Your task to perform on an android device: change the upload size in google photos Image 0: 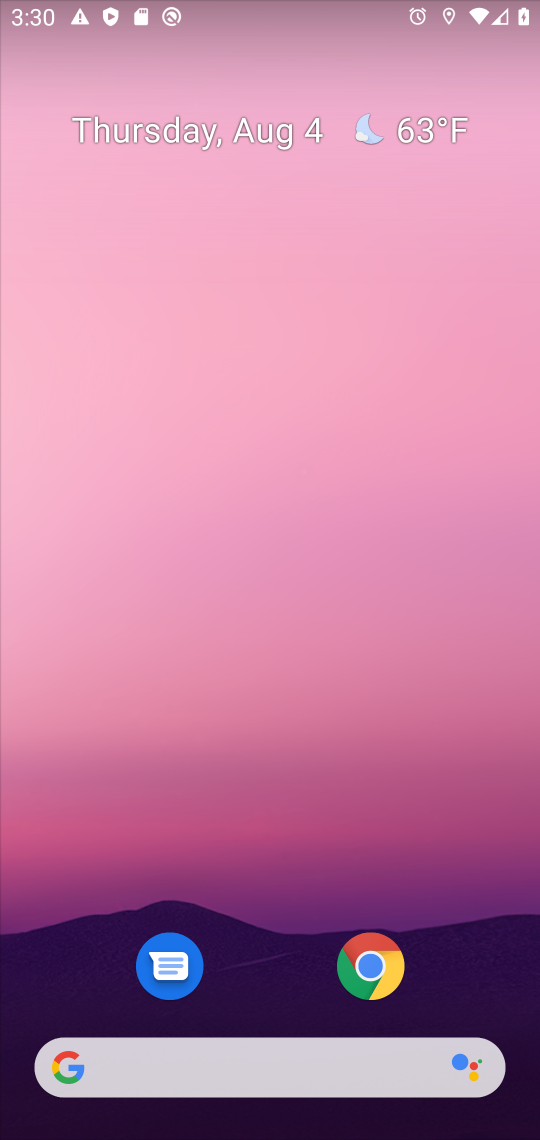
Step 0: press home button
Your task to perform on an android device: change the upload size in google photos Image 1: 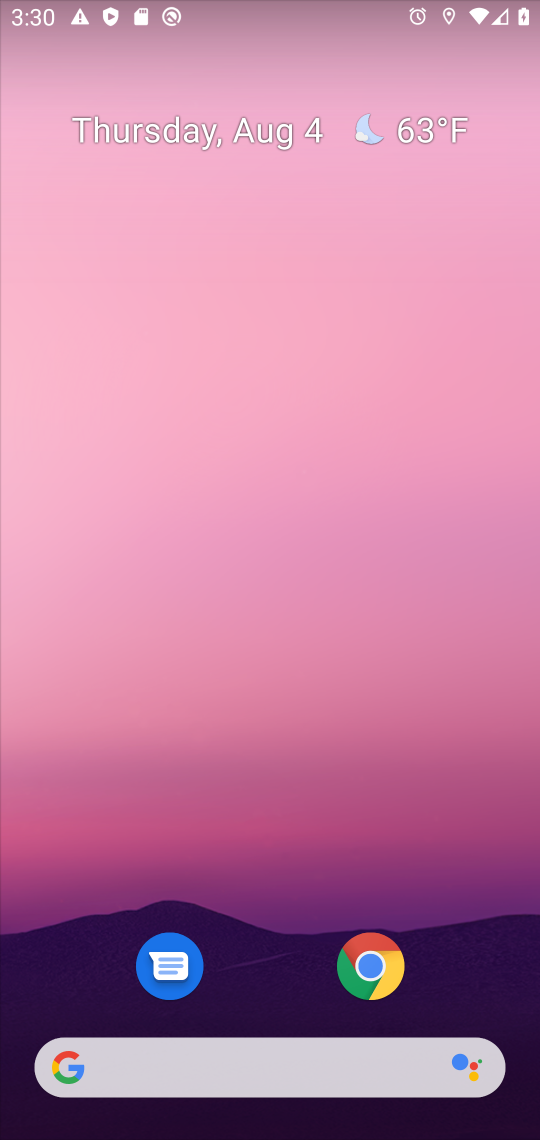
Step 1: drag from (305, 917) to (301, 97)
Your task to perform on an android device: change the upload size in google photos Image 2: 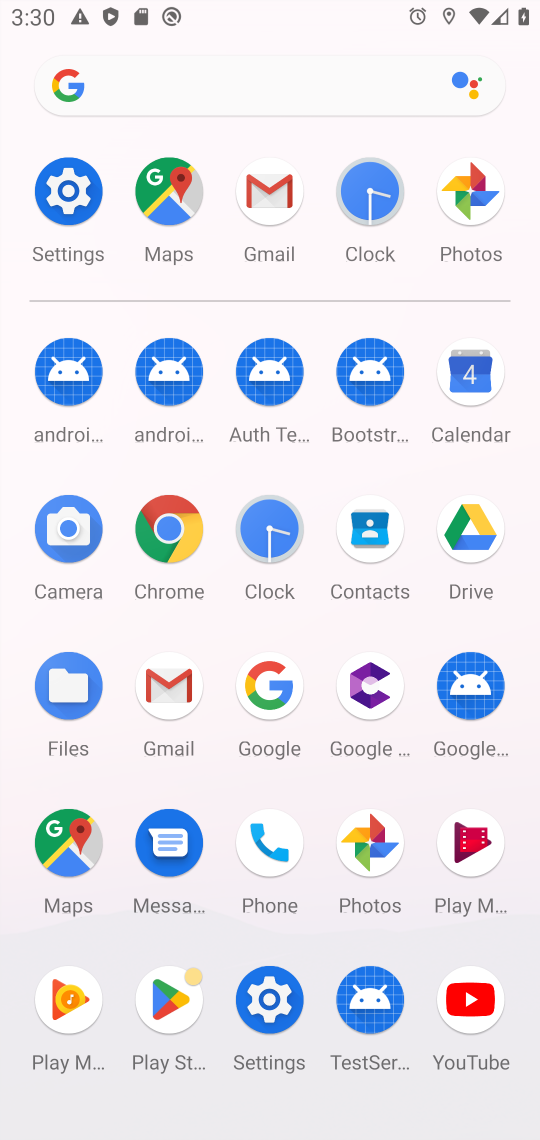
Step 2: click (460, 193)
Your task to perform on an android device: change the upload size in google photos Image 3: 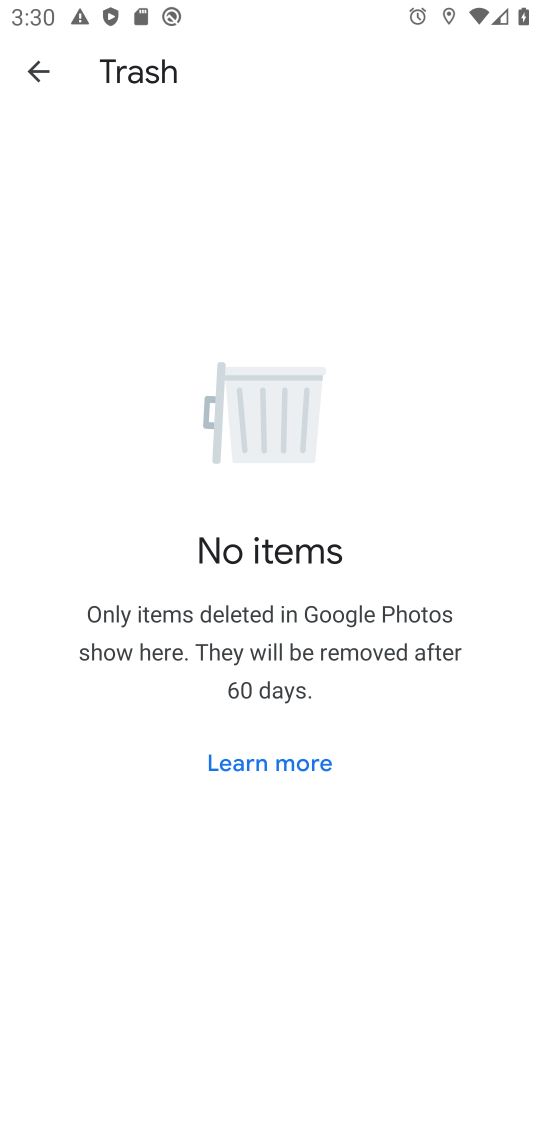
Step 3: click (41, 71)
Your task to perform on an android device: change the upload size in google photos Image 4: 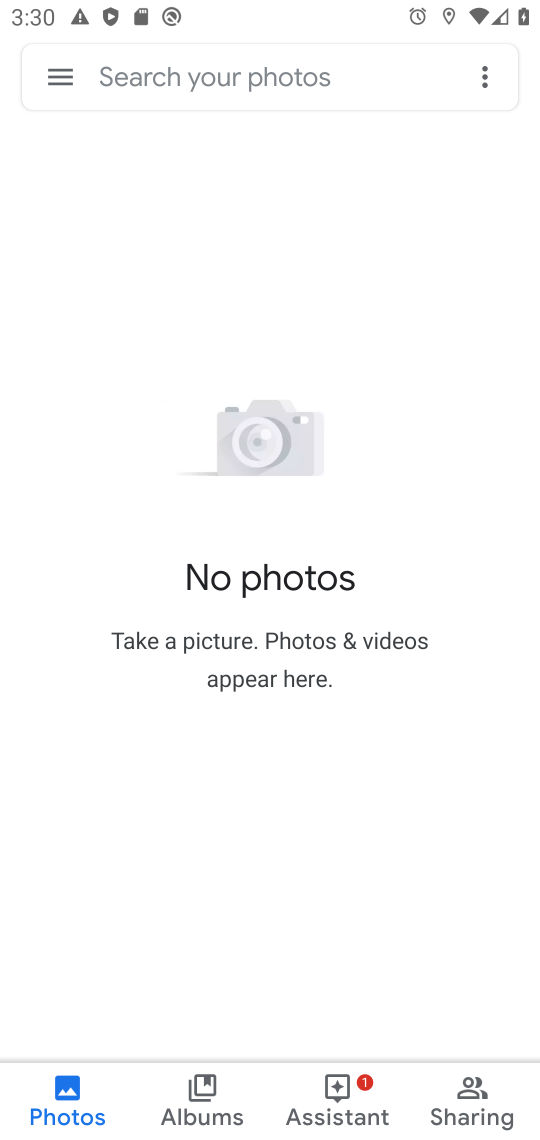
Step 4: click (41, 72)
Your task to perform on an android device: change the upload size in google photos Image 5: 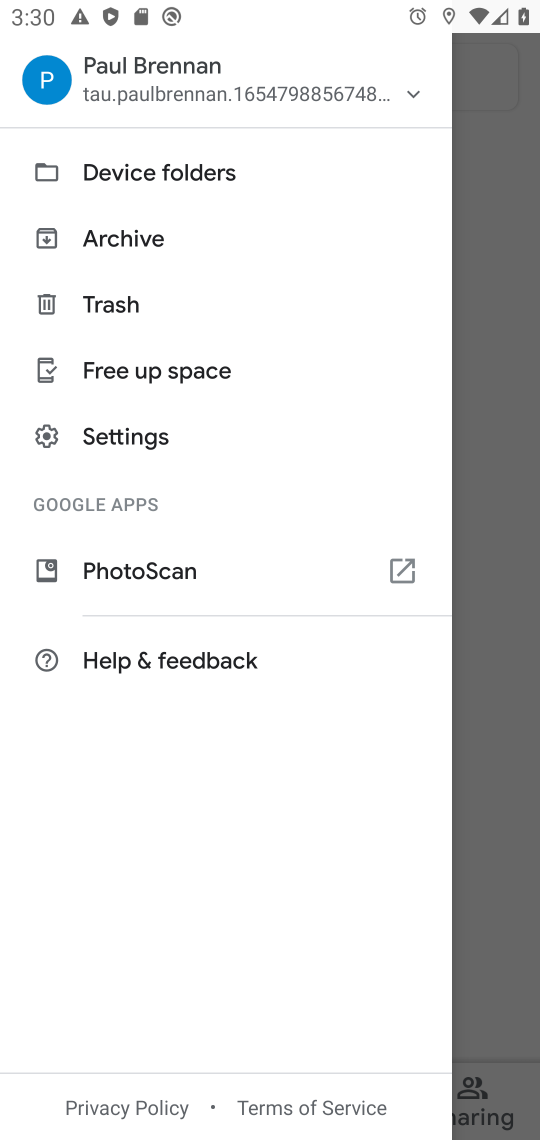
Step 5: click (126, 457)
Your task to perform on an android device: change the upload size in google photos Image 6: 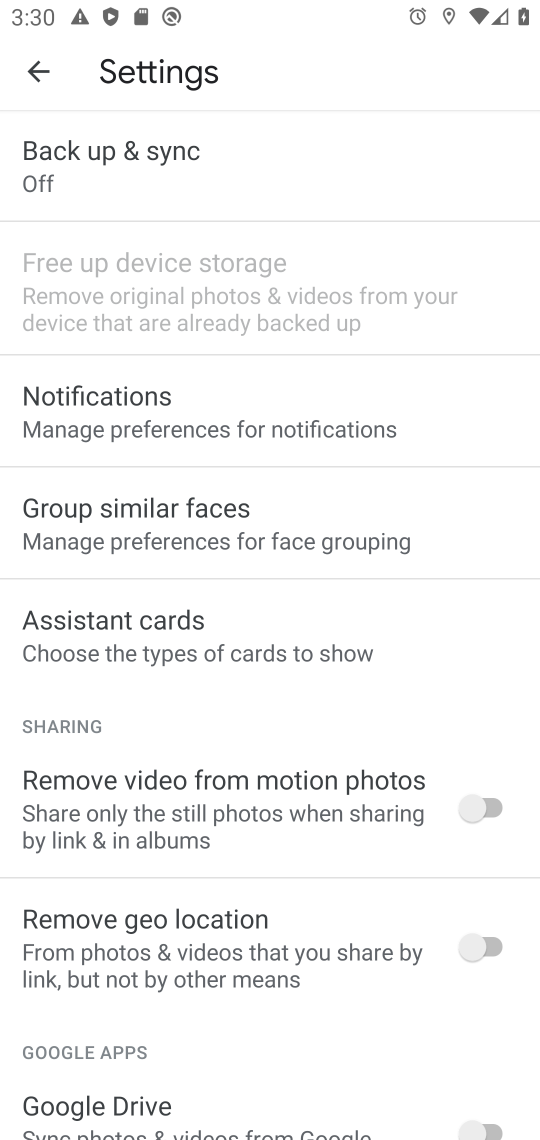
Step 6: click (145, 160)
Your task to perform on an android device: change the upload size in google photos Image 7: 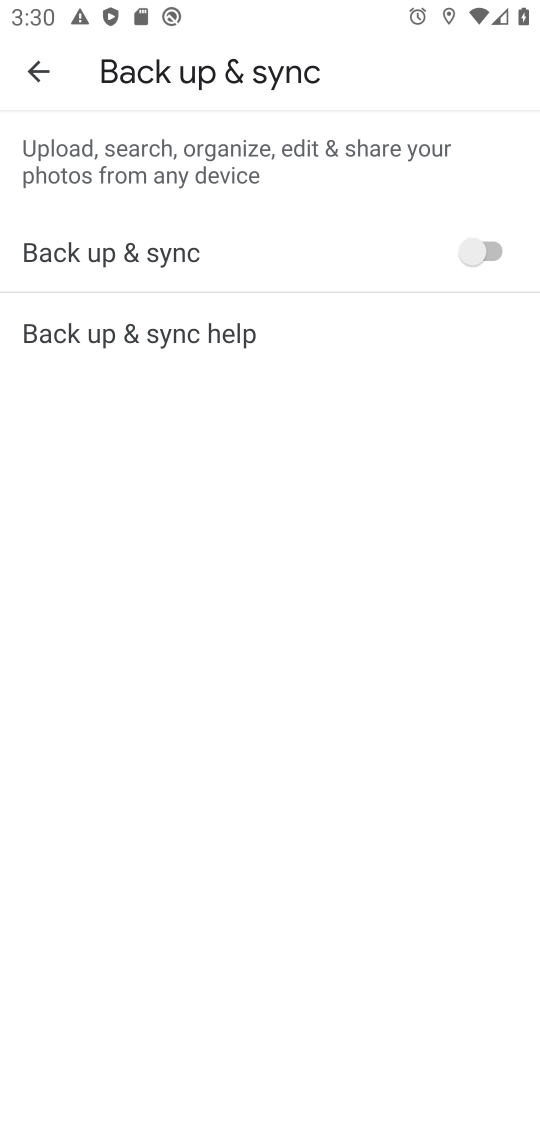
Step 7: click (65, 158)
Your task to perform on an android device: change the upload size in google photos Image 8: 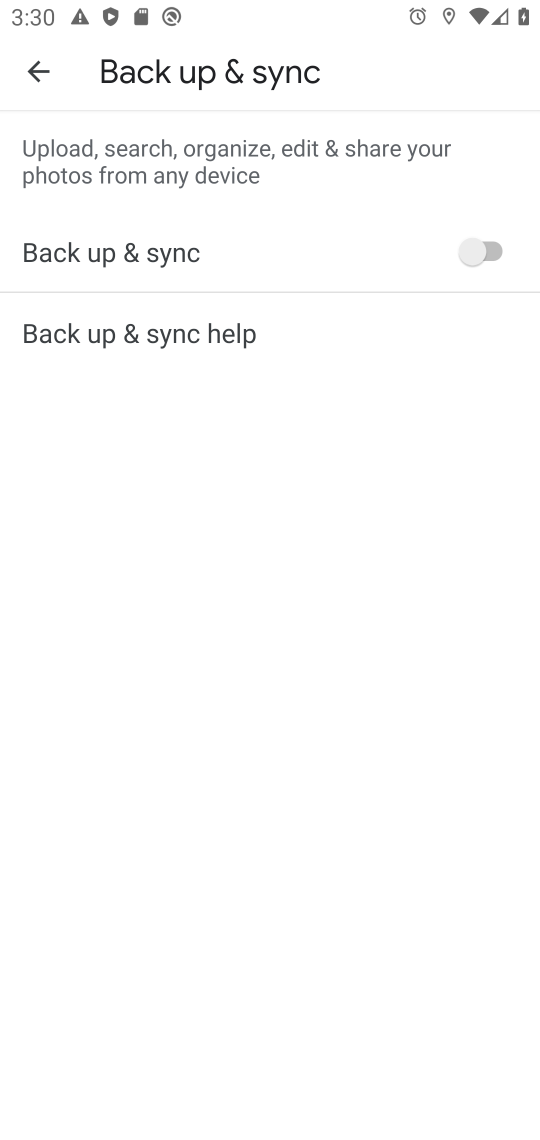
Step 8: click (41, 72)
Your task to perform on an android device: change the upload size in google photos Image 9: 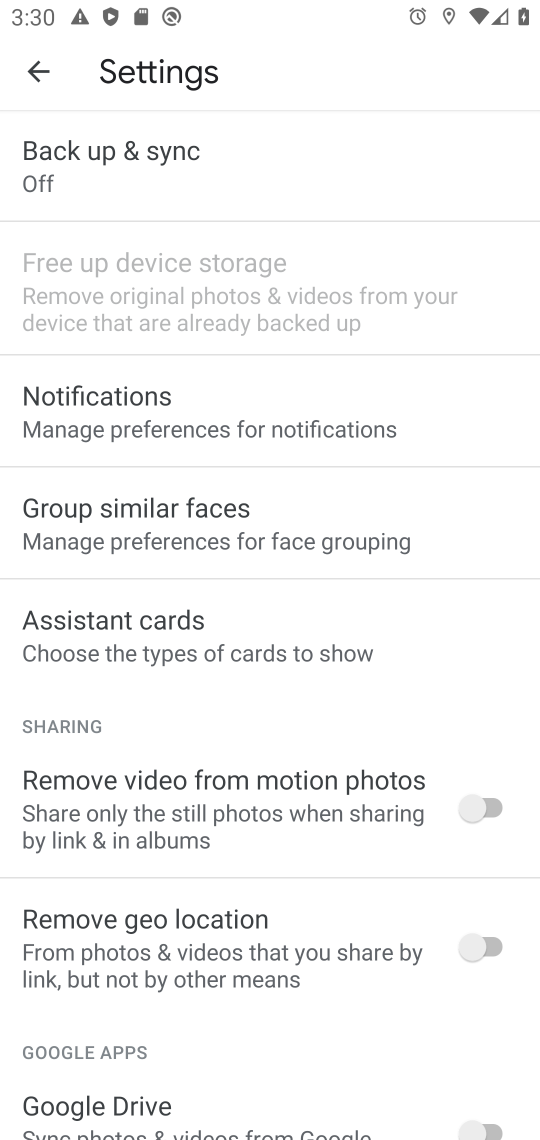
Step 9: drag from (332, 1052) to (310, 445)
Your task to perform on an android device: change the upload size in google photos Image 10: 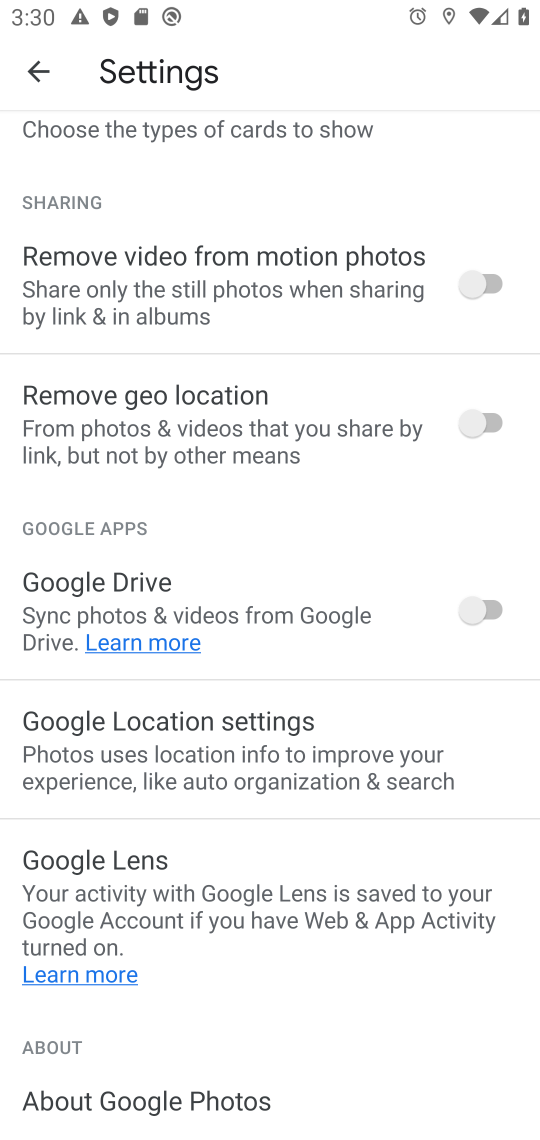
Step 10: drag from (298, 895) to (266, 411)
Your task to perform on an android device: change the upload size in google photos Image 11: 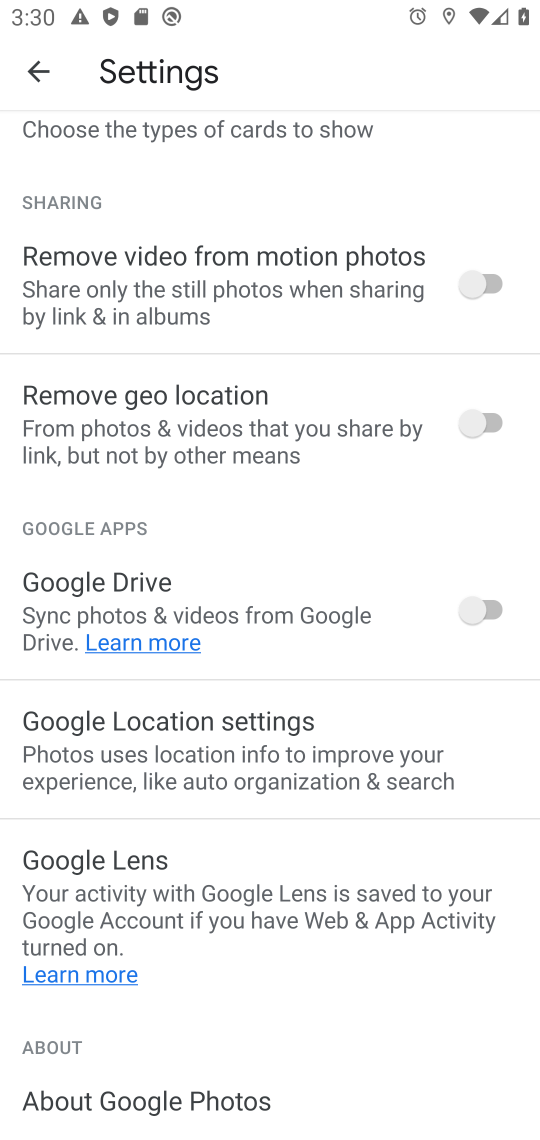
Step 11: click (37, 92)
Your task to perform on an android device: change the upload size in google photos Image 12: 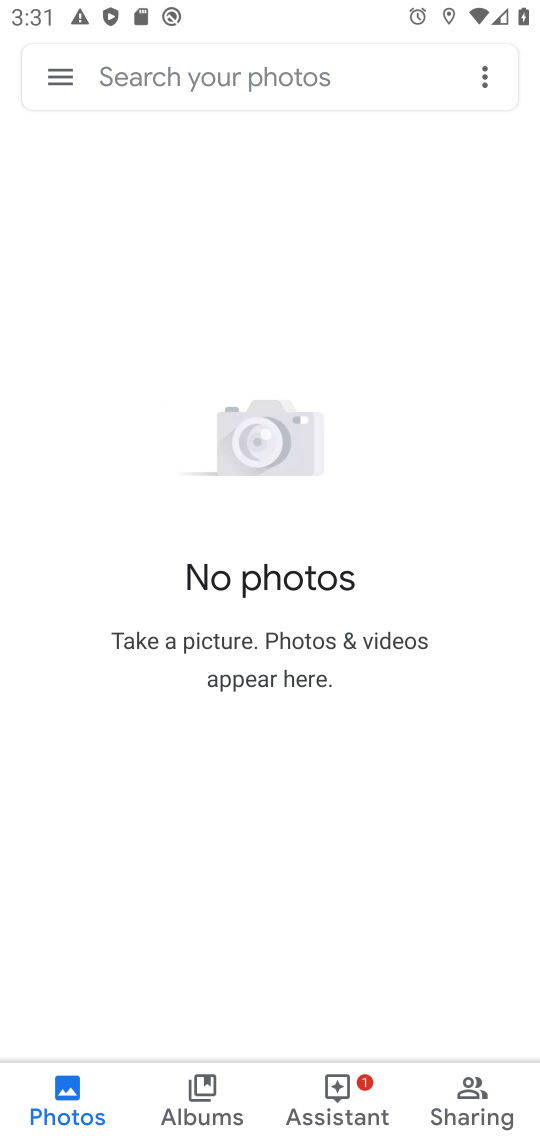
Step 12: task complete